Your task to perform on an android device: read, delete, or share a saved page in the chrome app Image 0: 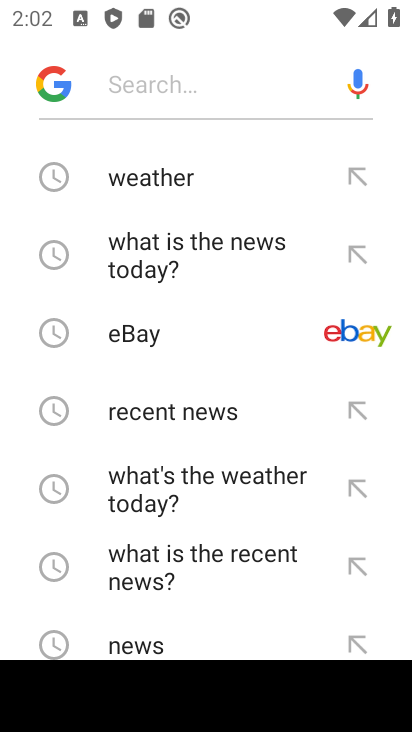
Step 0: press back button
Your task to perform on an android device: read, delete, or share a saved page in the chrome app Image 1: 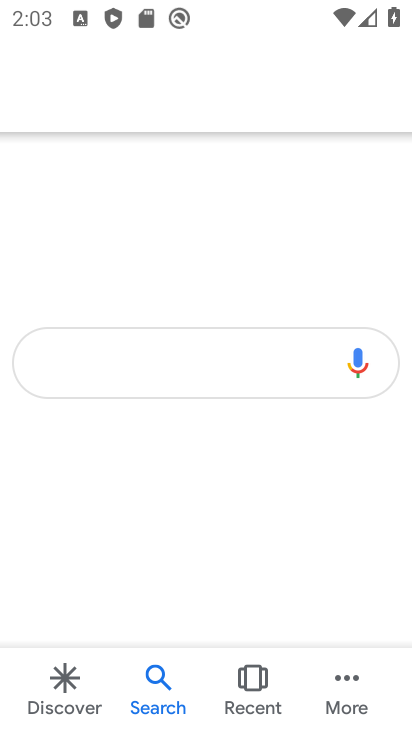
Step 1: press back button
Your task to perform on an android device: read, delete, or share a saved page in the chrome app Image 2: 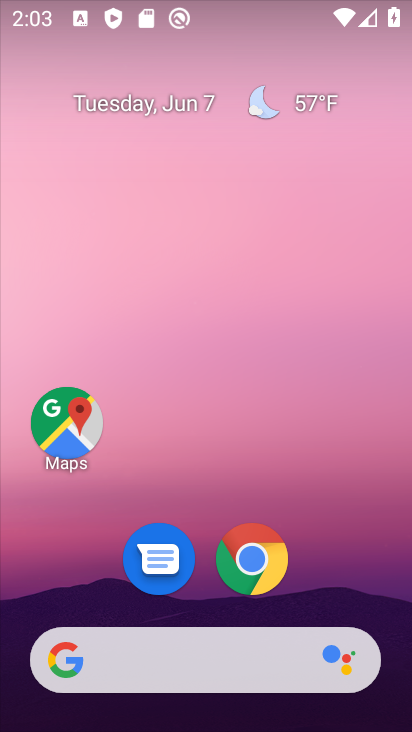
Step 2: click (247, 575)
Your task to perform on an android device: read, delete, or share a saved page in the chrome app Image 3: 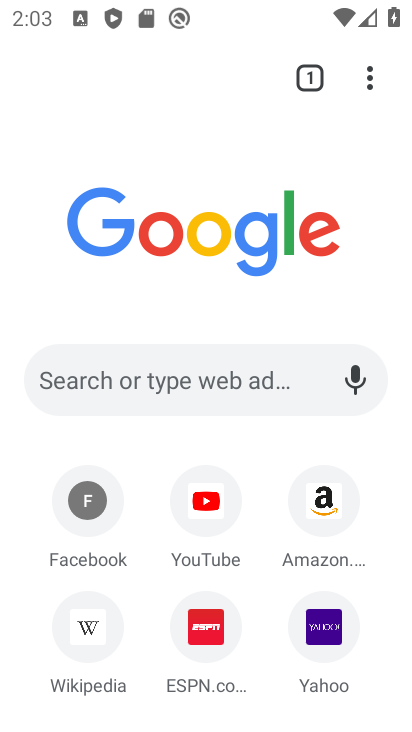
Step 3: click (104, 493)
Your task to perform on an android device: read, delete, or share a saved page in the chrome app Image 4: 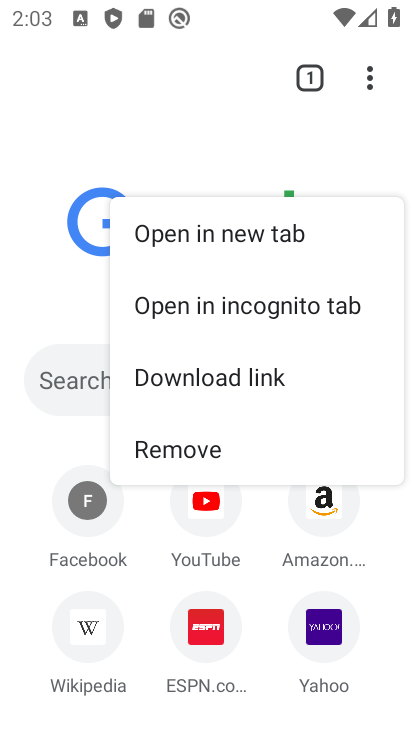
Step 4: click (163, 457)
Your task to perform on an android device: read, delete, or share a saved page in the chrome app Image 5: 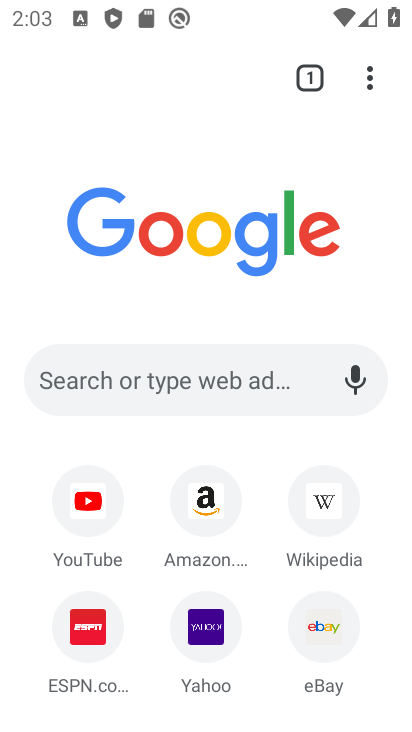
Step 5: task complete